Your task to perform on an android device: change timer sound Image 0: 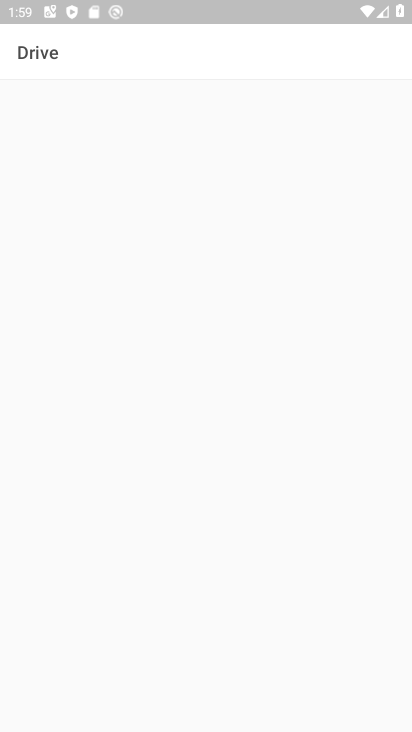
Step 0: press home button
Your task to perform on an android device: change timer sound Image 1: 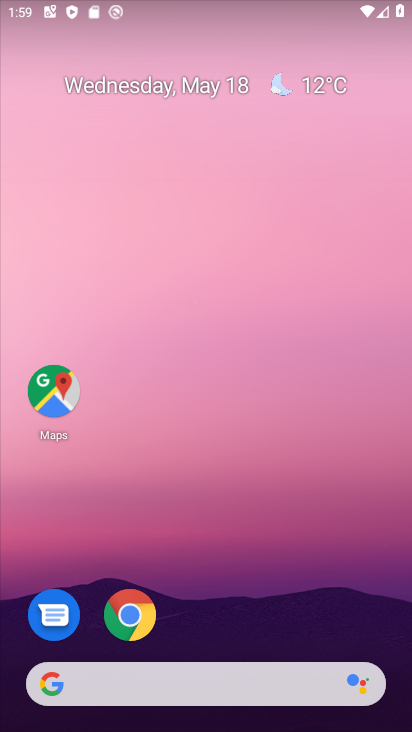
Step 1: drag from (328, 537) to (250, 65)
Your task to perform on an android device: change timer sound Image 2: 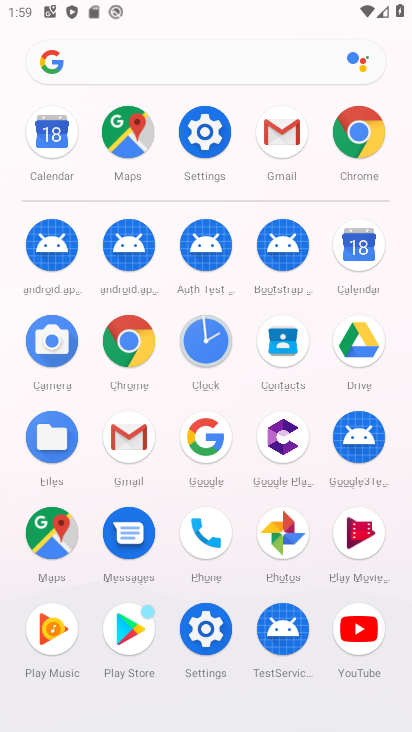
Step 2: click (211, 342)
Your task to perform on an android device: change timer sound Image 3: 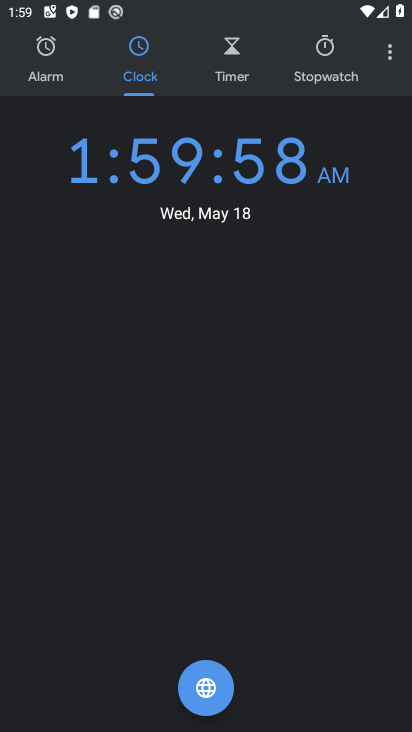
Step 3: click (389, 55)
Your task to perform on an android device: change timer sound Image 4: 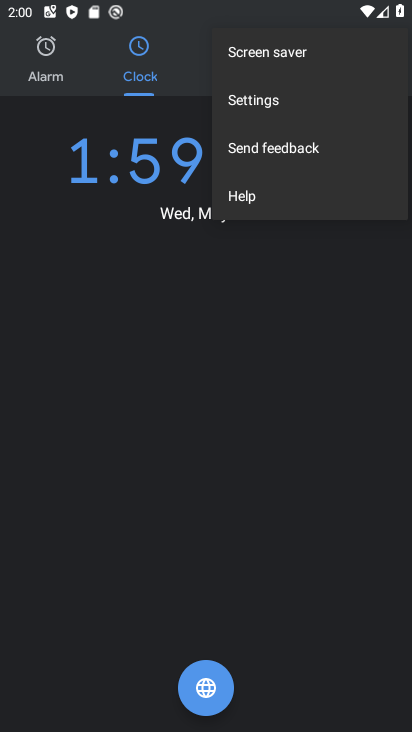
Step 4: click (266, 92)
Your task to perform on an android device: change timer sound Image 5: 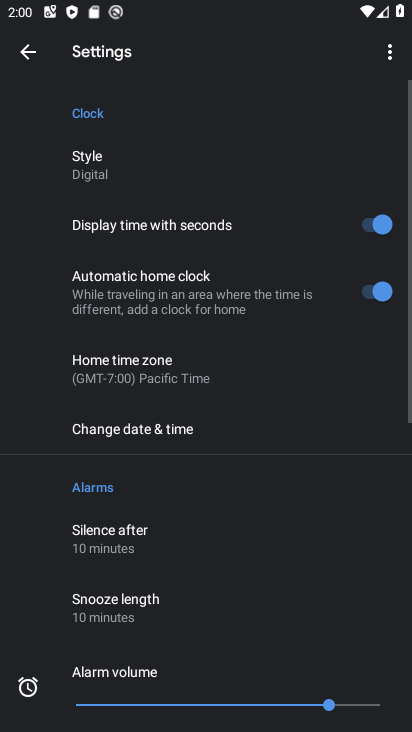
Step 5: drag from (159, 657) to (238, 186)
Your task to perform on an android device: change timer sound Image 6: 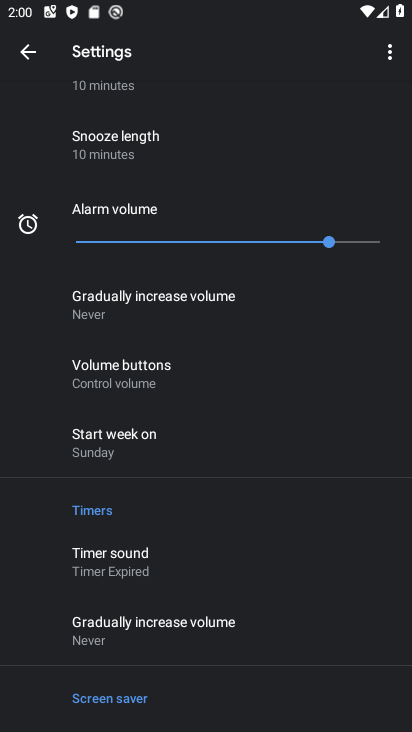
Step 6: click (154, 562)
Your task to perform on an android device: change timer sound Image 7: 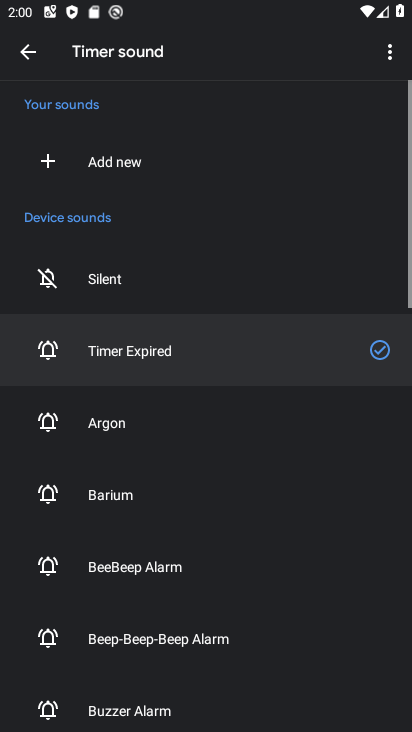
Step 7: click (176, 499)
Your task to perform on an android device: change timer sound Image 8: 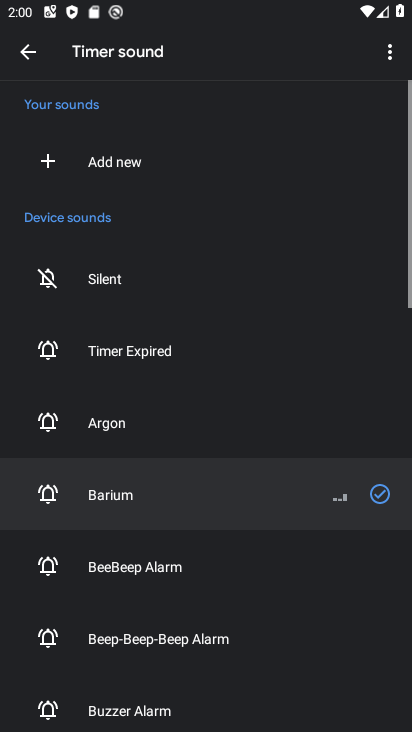
Step 8: task complete